Your task to perform on an android device: toggle translation in the chrome app Image 0: 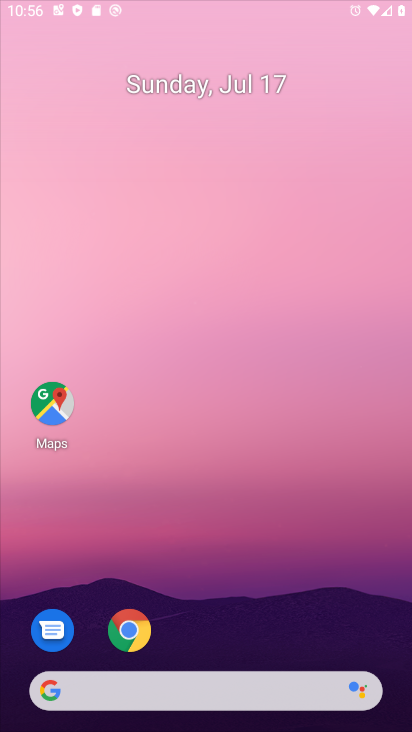
Step 0: drag from (288, 410) to (266, 163)
Your task to perform on an android device: toggle translation in the chrome app Image 1: 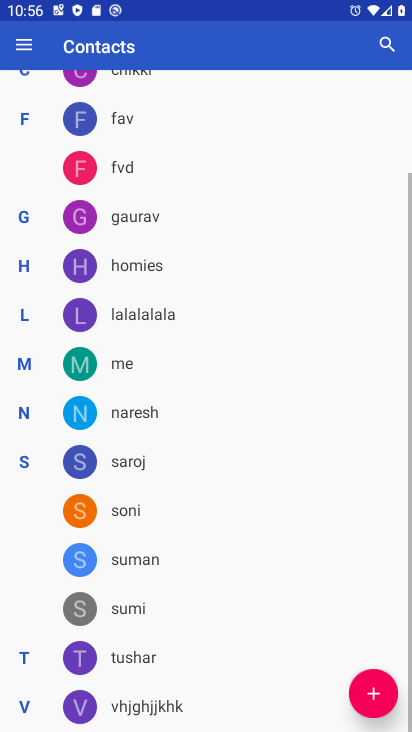
Step 1: press home button
Your task to perform on an android device: toggle translation in the chrome app Image 2: 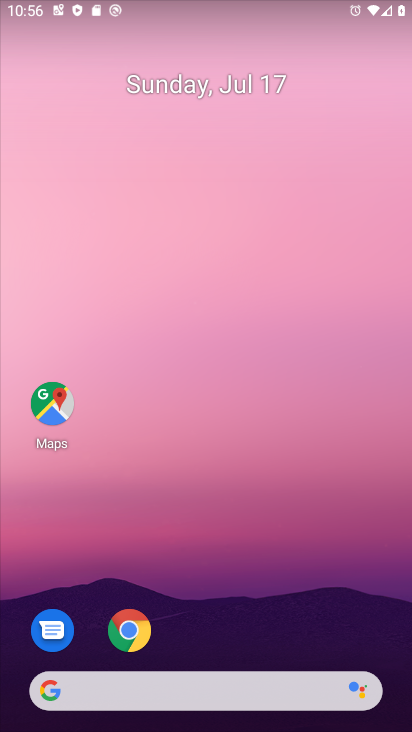
Step 2: drag from (351, 619) to (337, 50)
Your task to perform on an android device: toggle translation in the chrome app Image 3: 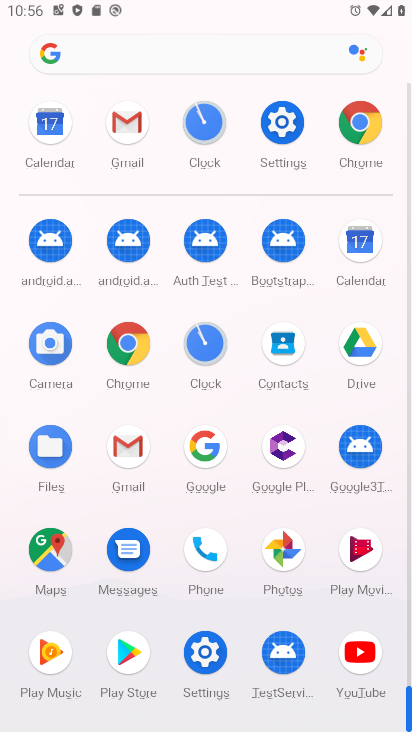
Step 3: click (132, 339)
Your task to perform on an android device: toggle translation in the chrome app Image 4: 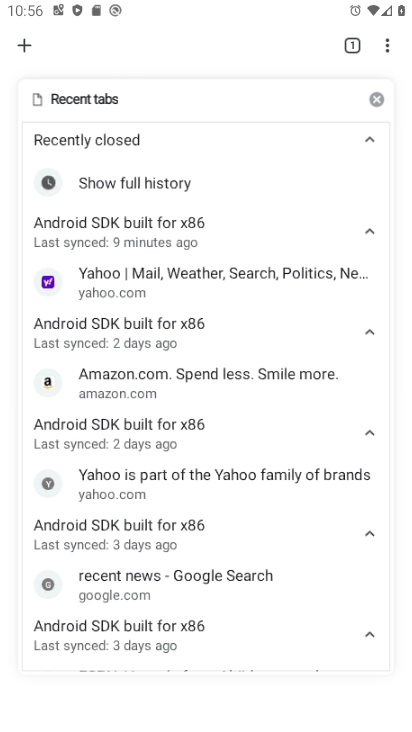
Step 4: press back button
Your task to perform on an android device: toggle translation in the chrome app Image 5: 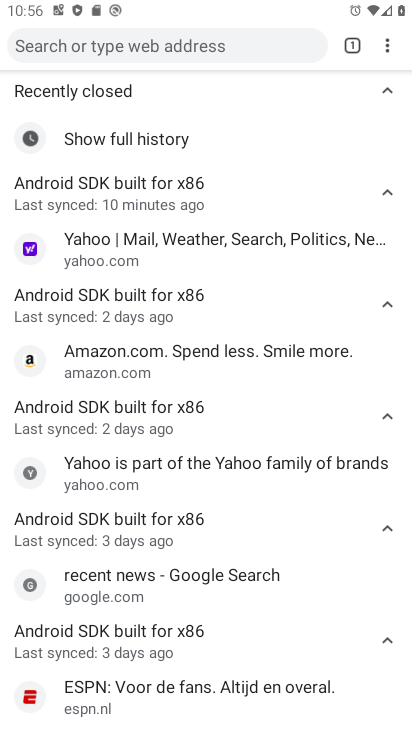
Step 5: click (387, 52)
Your task to perform on an android device: toggle translation in the chrome app Image 6: 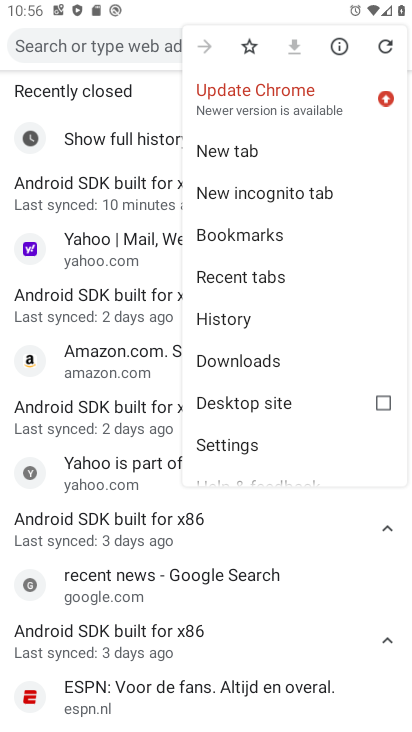
Step 6: click (268, 447)
Your task to perform on an android device: toggle translation in the chrome app Image 7: 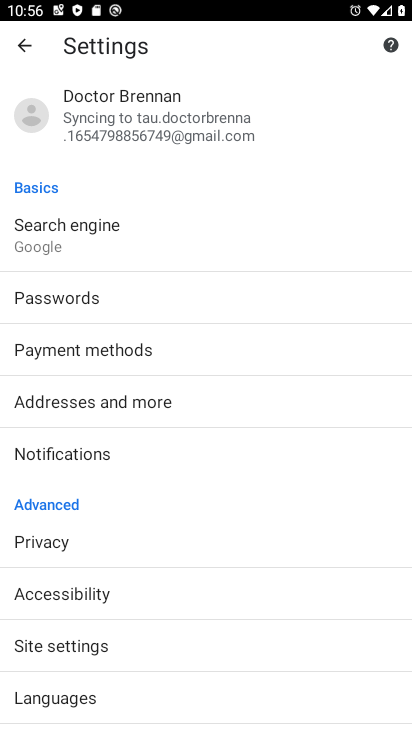
Step 7: drag from (308, 542) to (317, 449)
Your task to perform on an android device: toggle translation in the chrome app Image 8: 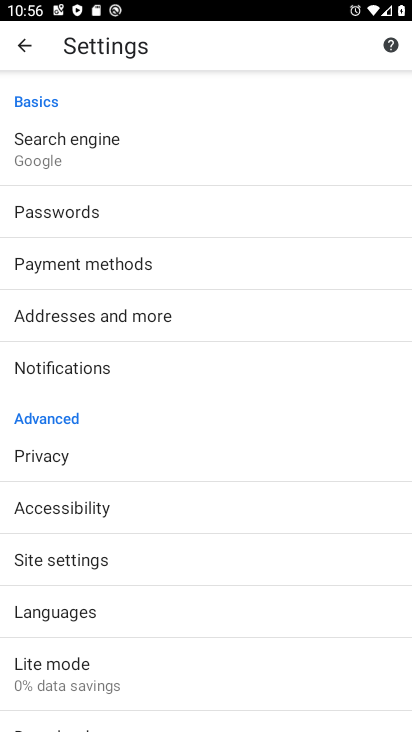
Step 8: drag from (318, 537) to (320, 415)
Your task to perform on an android device: toggle translation in the chrome app Image 9: 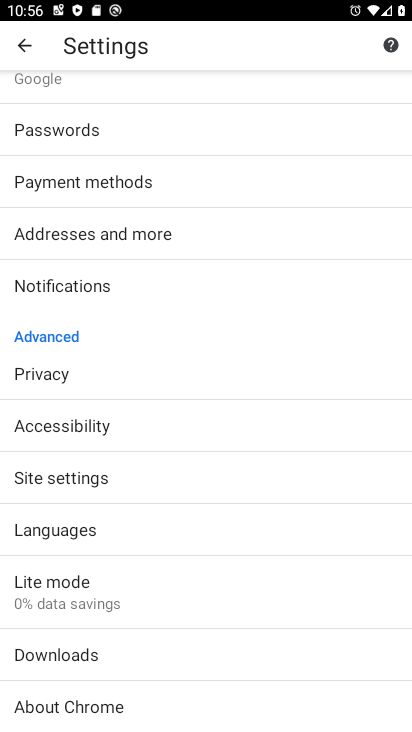
Step 9: drag from (317, 525) to (301, 384)
Your task to perform on an android device: toggle translation in the chrome app Image 10: 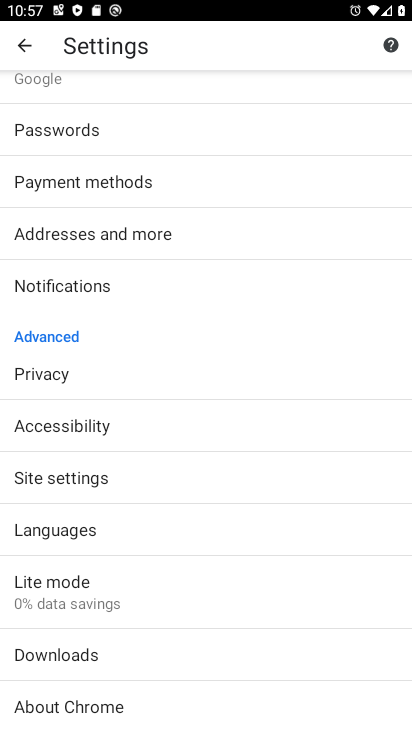
Step 10: click (283, 531)
Your task to perform on an android device: toggle translation in the chrome app Image 11: 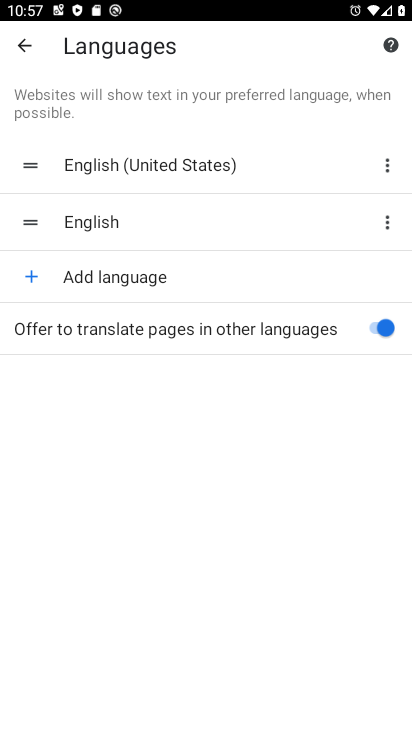
Step 11: click (379, 323)
Your task to perform on an android device: toggle translation in the chrome app Image 12: 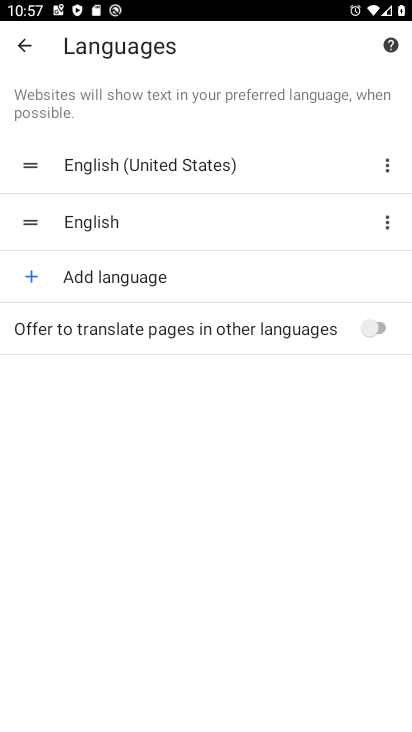
Step 12: task complete